Your task to perform on an android device: Show me the alarms in the clock app Image 0: 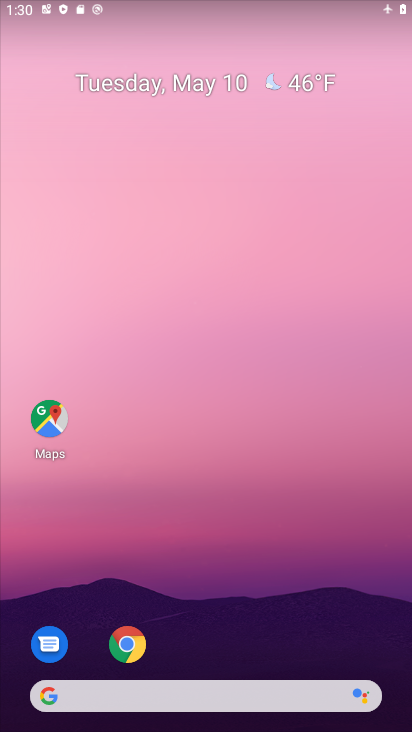
Step 0: drag from (236, 650) to (269, 259)
Your task to perform on an android device: Show me the alarms in the clock app Image 1: 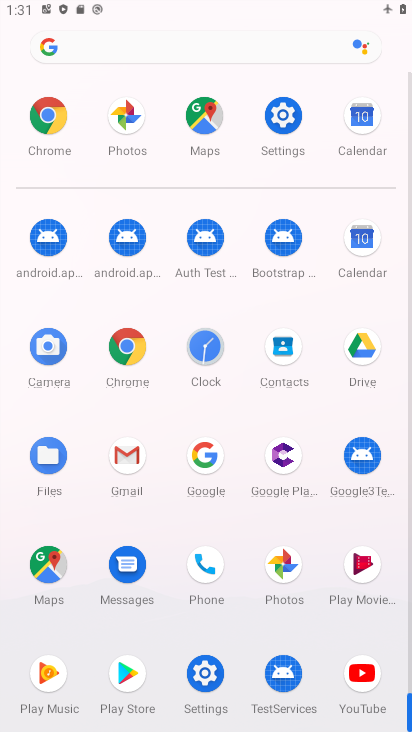
Step 1: click (214, 368)
Your task to perform on an android device: Show me the alarms in the clock app Image 2: 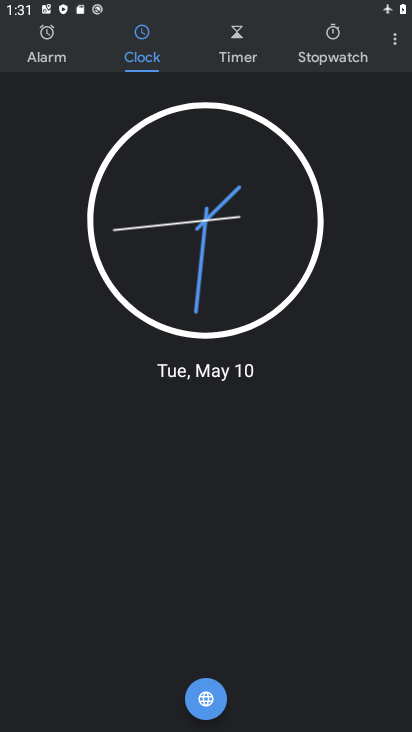
Step 2: click (43, 49)
Your task to perform on an android device: Show me the alarms in the clock app Image 3: 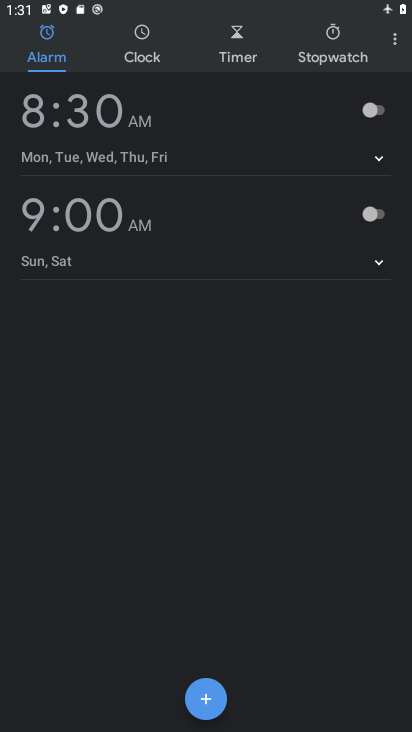
Step 3: task complete